Your task to perform on an android device: Open network settings Image 0: 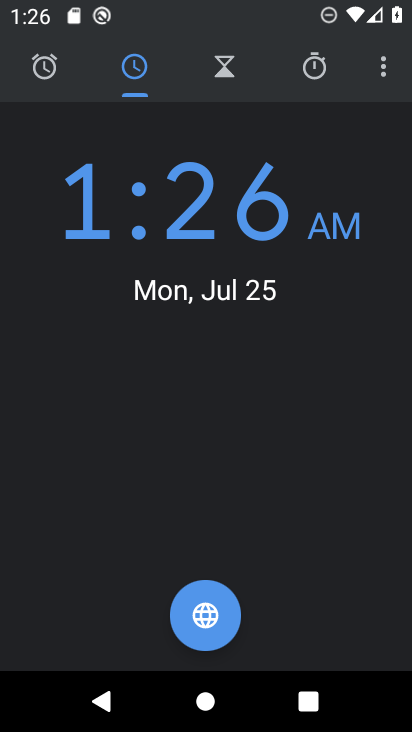
Step 0: press home button
Your task to perform on an android device: Open network settings Image 1: 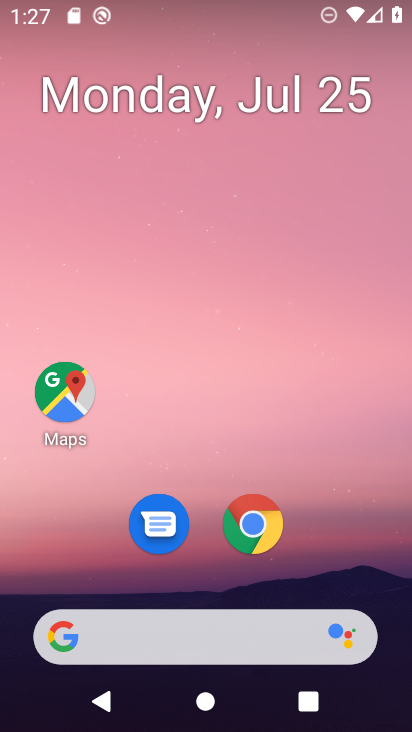
Step 1: drag from (176, 639) to (340, 35)
Your task to perform on an android device: Open network settings Image 2: 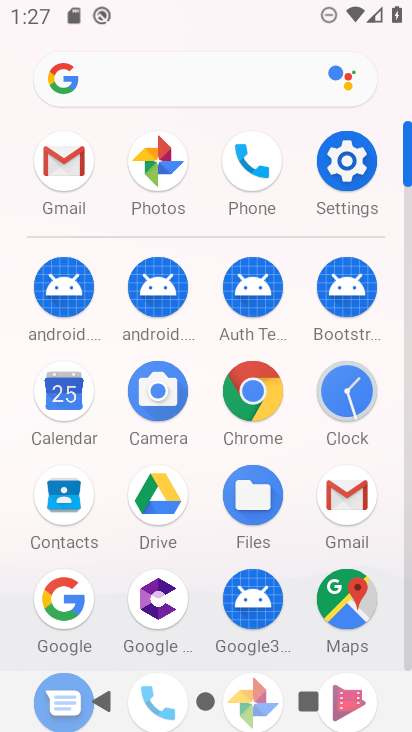
Step 2: click (333, 154)
Your task to perform on an android device: Open network settings Image 3: 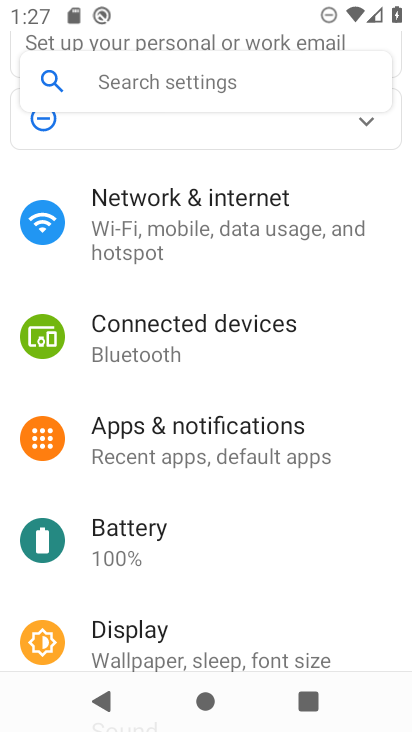
Step 3: click (244, 218)
Your task to perform on an android device: Open network settings Image 4: 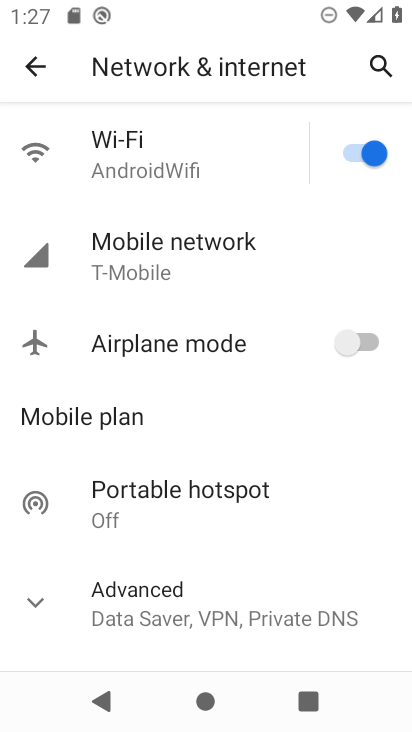
Step 4: click (184, 263)
Your task to perform on an android device: Open network settings Image 5: 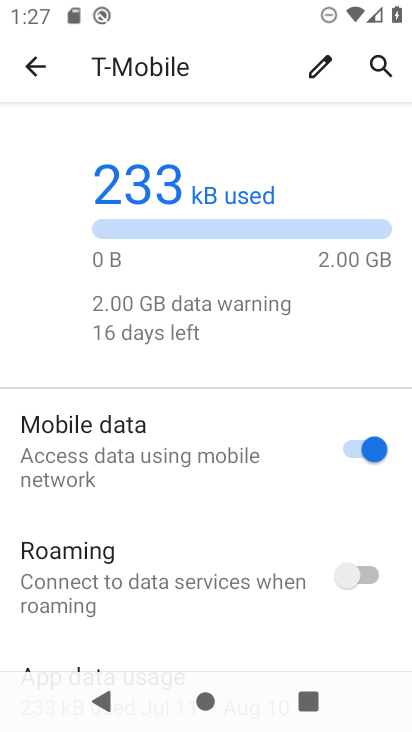
Step 5: task complete